Your task to perform on an android device: see creations saved in the google photos Image 0: 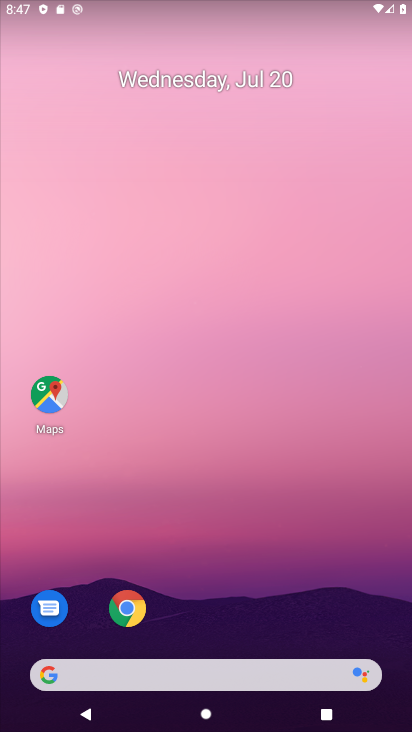
Step 0: drag from (336, 635) to (269, 105)
Your task to perform on an android device: see creations saved in the google photos Image 1: 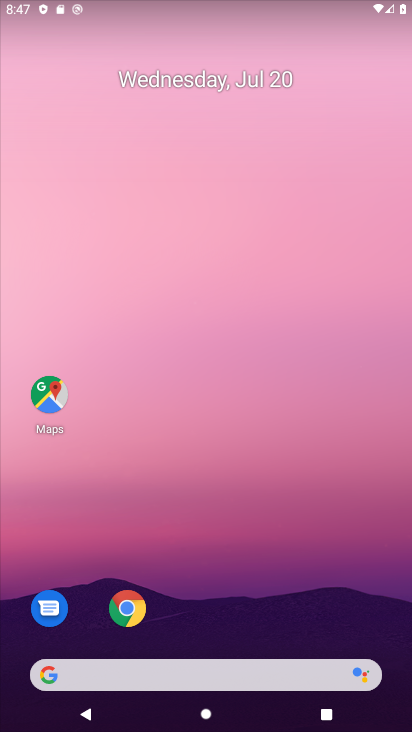
Step 1: drag from (264, 456) to (146, 198)
Your task to perform on an android device: see creations saved in the google photos Image 2: 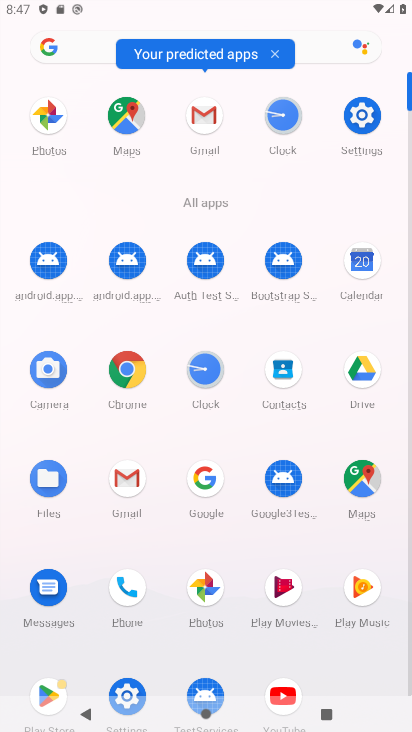
Step 2: click (202, 587)
Your task to perform on an android device: see creations saved in the google photos Image 3: 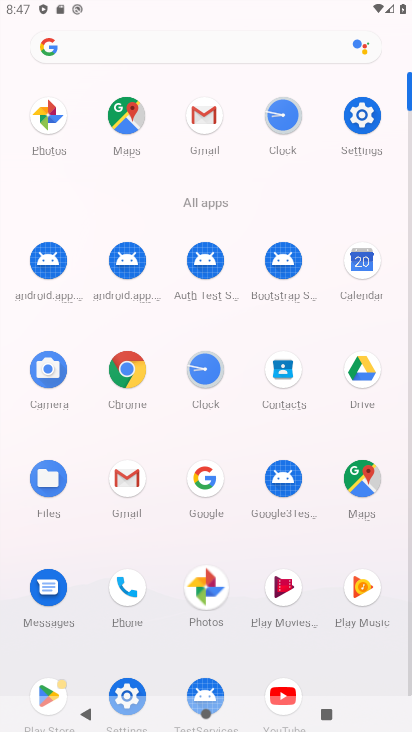
Step 3: click (208, 584)
Your task to perform on an android device: see creations saved in the google photos Image 4: 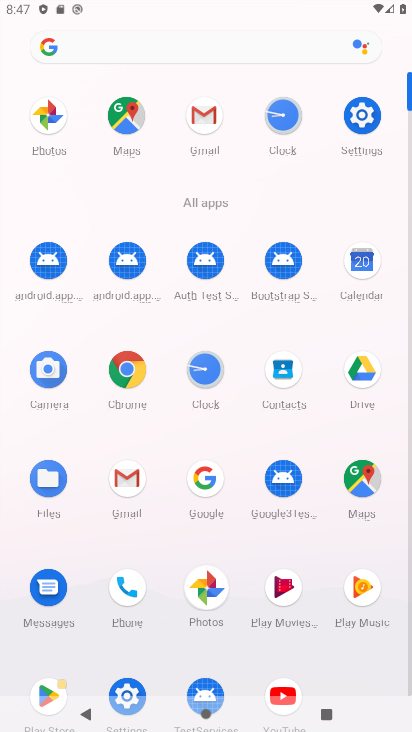
Step 4: click (208, 584)
Your task to perform on an android device: see creations saved in the google photos Image 5: 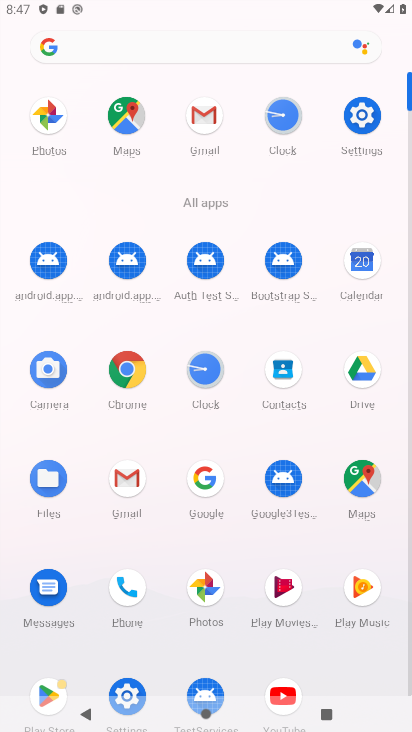
Step 5: click (208, 586)
Your task to perform on an android device: see creations saved in the google photos Image 6: 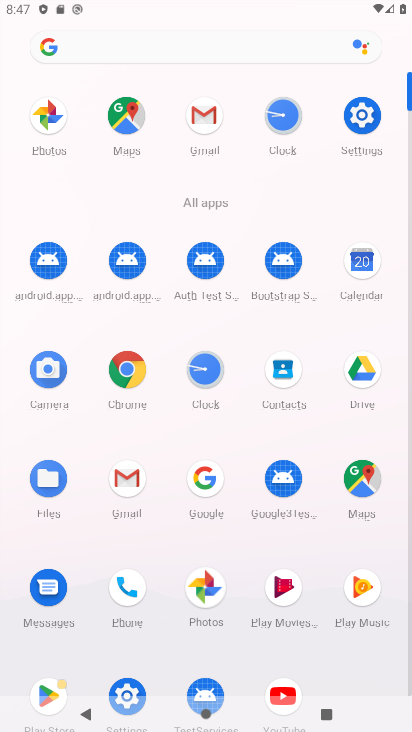
Step 6: click (208, 589)
Your task to perform on an android device: see creations saved in the google photos Image 7: 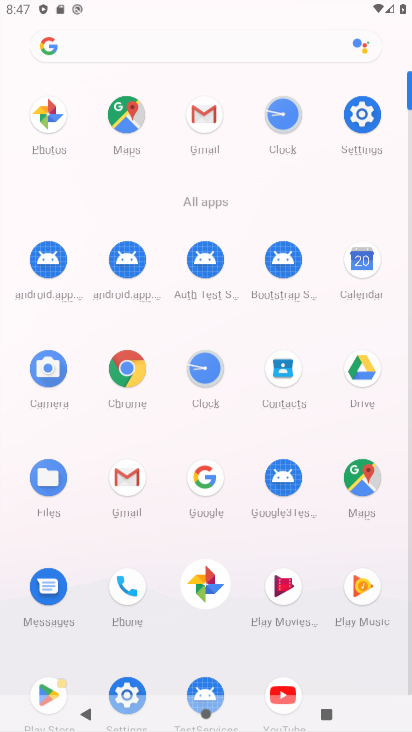
Step 7: click (208, 589)
Your task to perform on an android device: see creations saved in the google photos Image 8: 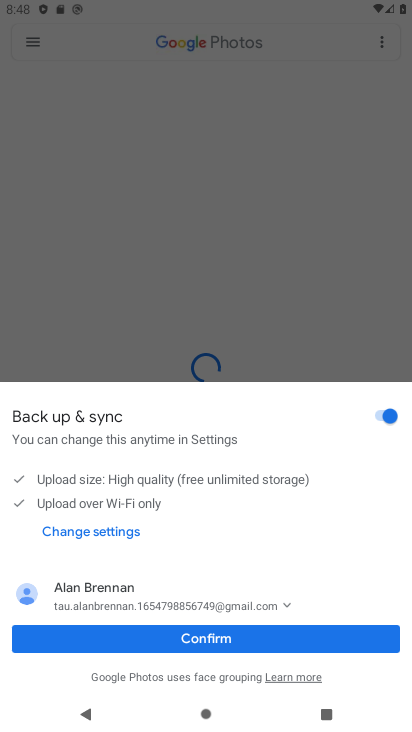
Step 8: task complete